Your task to perform on an android device: Go to battery settings Image 0: 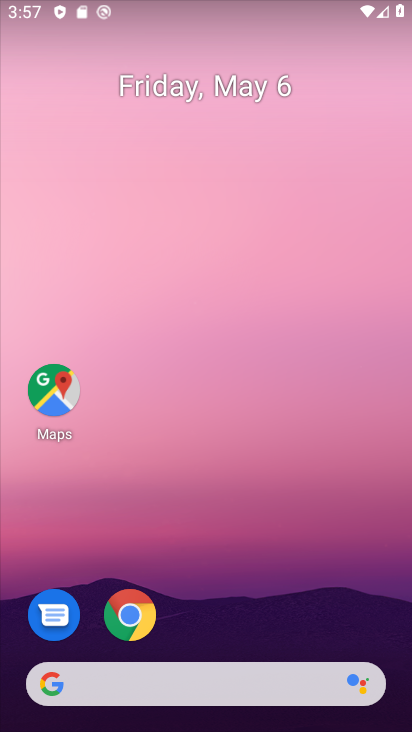
Step 0: drag from (218, 661) to (211, 12)
Your task to perform on an android device: Go to battery settings Image 1: 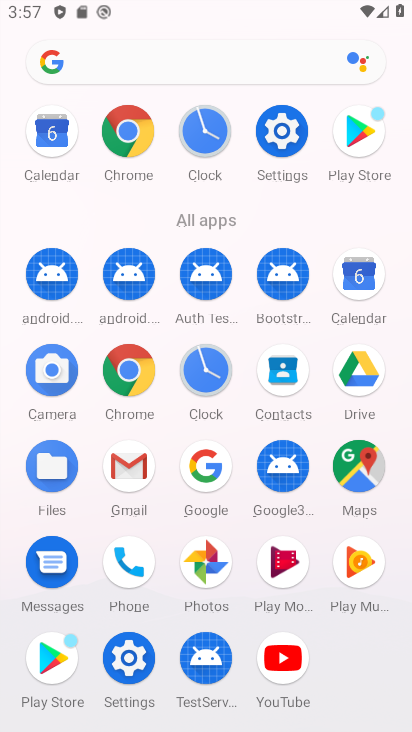
Step 1: click (286, 140)
Your task to perform on an android device: Go to battery settings Image 2: 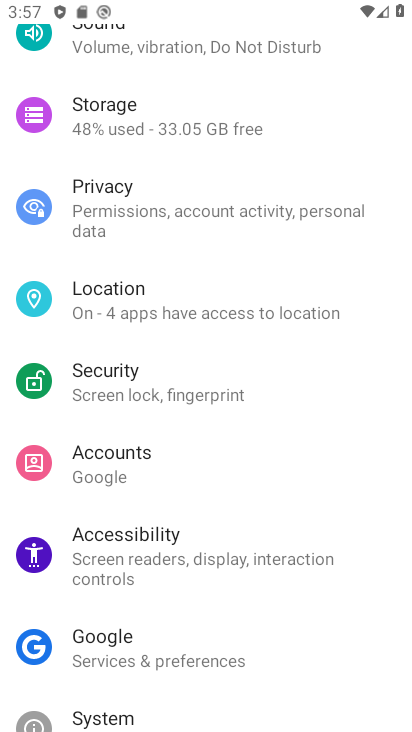
Step 2: drag from (220, 599) to (203, 468)
Your task to perform on an android device: Go to battery settings Image 3: 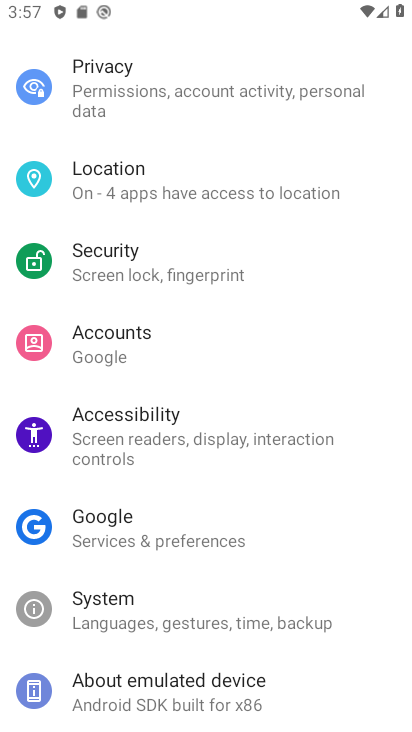
Step 3: drag from (150, 164) to (155, 669)
Your task to perform on an android device: Go to battery settings Image 4: 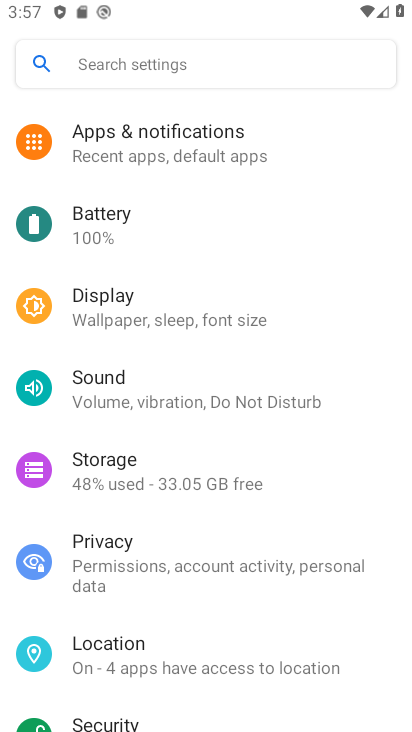
Step 4: click (117, 238)
Your task to perform on an android device: Go to battery settings Image 5: 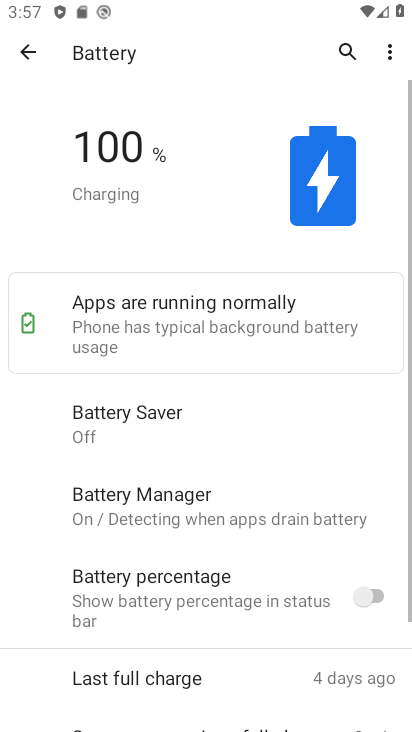
Step 5: task complete